Your task to perform on an android device: turn off picture-in-picture Image 0: 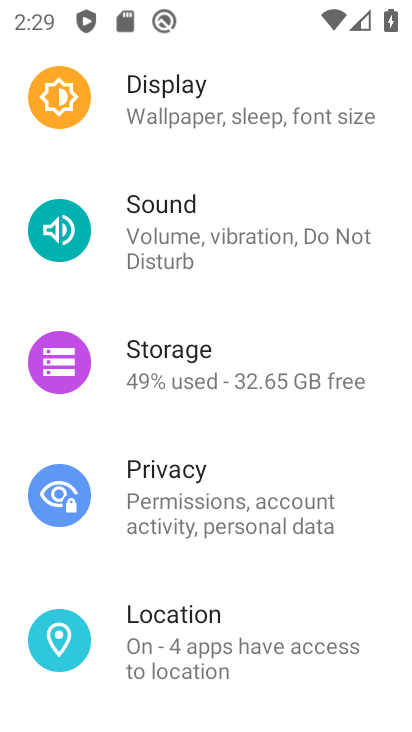
Step 0: drag from (219, 611) to (281, 352)
Your task to perform on an android device: turn off picture-in-picture Image 1: 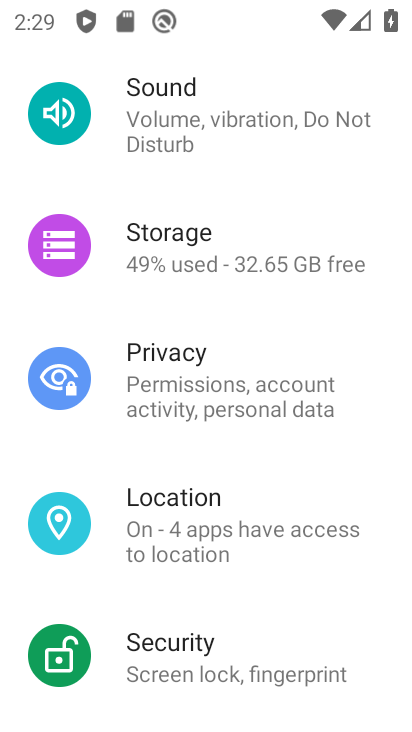
Step 1: drag from (161, 644) to (261, 716)
Your task to perform on an android device: turn off picture-in-picture Image 2: 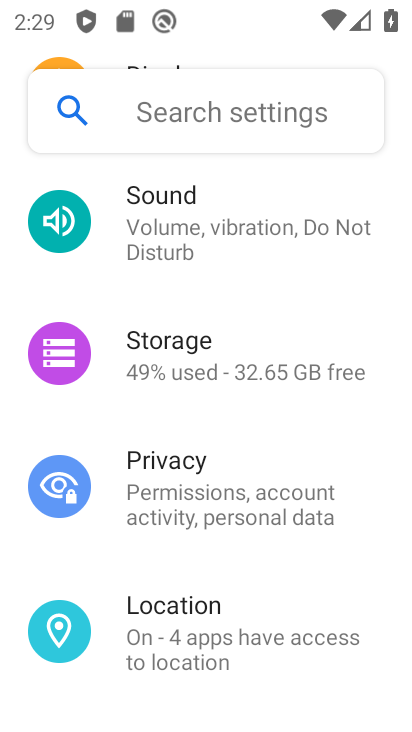
Step 2: drag from (258, 332) to (208, 705)
Your task to perform on an android device: turn off picture-in-picture Image 3: 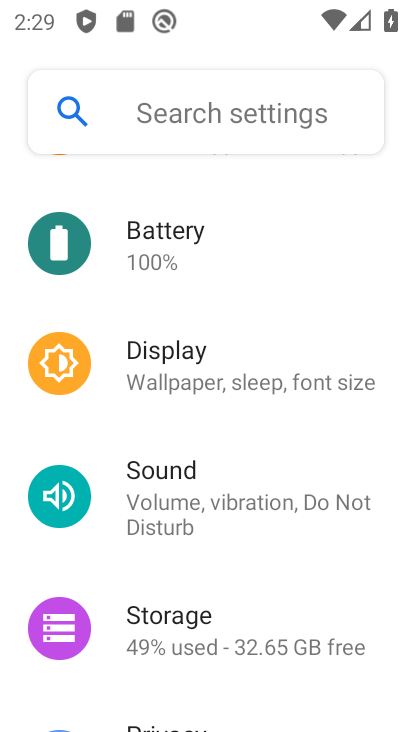
Step 3: drag from (256, 403) to (218, 699)
Your task to perform on an android device: turn off picture-in-picture Image 4: 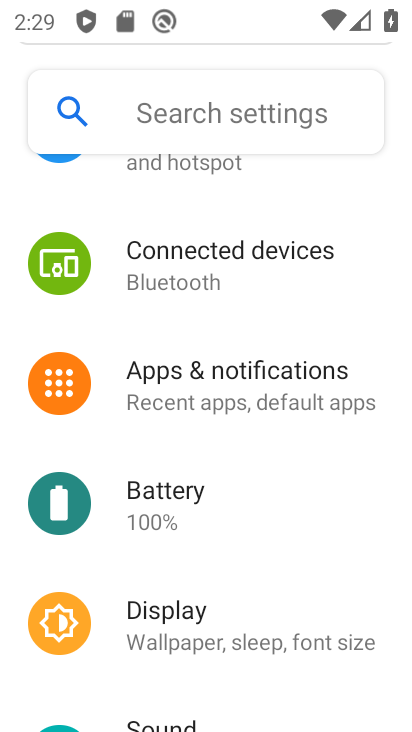
Step 4: click (277, 406)
Your task to perform on an android device: turn off picture-in-picture Image 5: 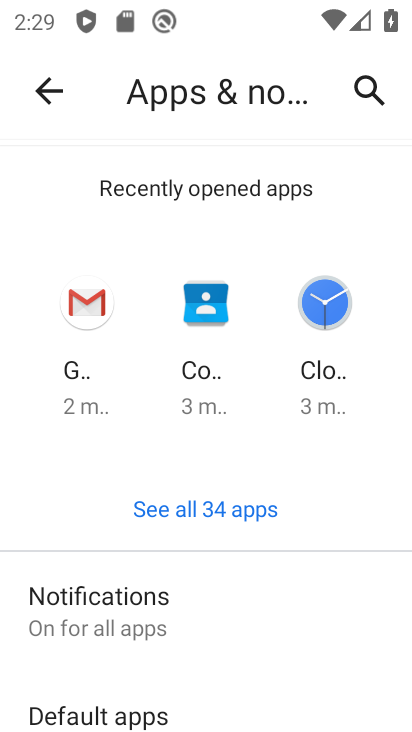
Step 5: drag from (168, 683) to (320, 428)
Your task to perform on an android device: turn off picture-in-picture Image 6: 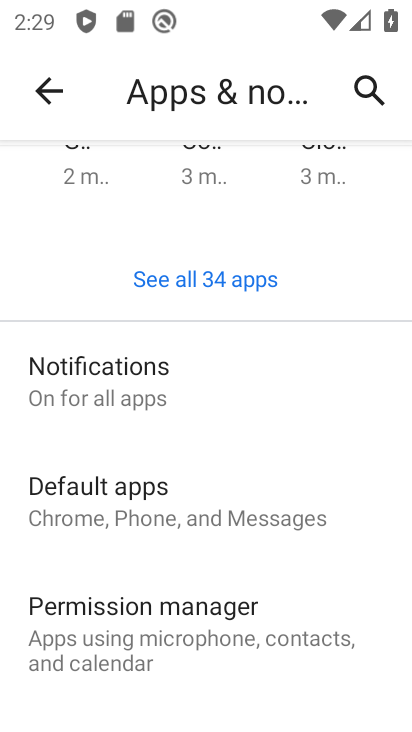
Step 6: drag from (100, 648) to (262, 271)
Your task to perform on an android device: turn off picture-in-picture Image 7: 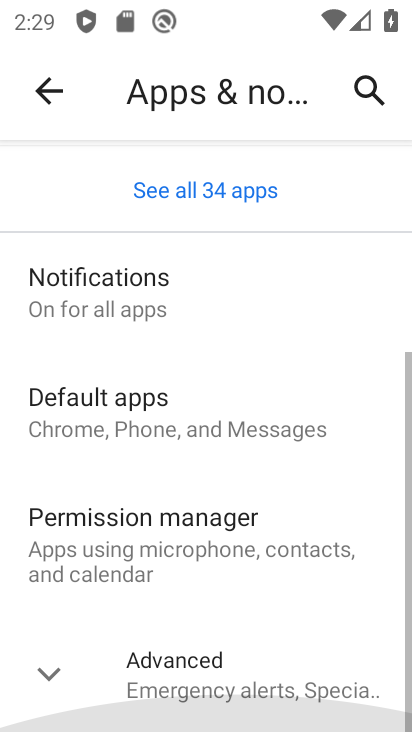
Step 7: click (227, 688)
Your task to perform on an android device: turn off picture-in-picture Image 8: 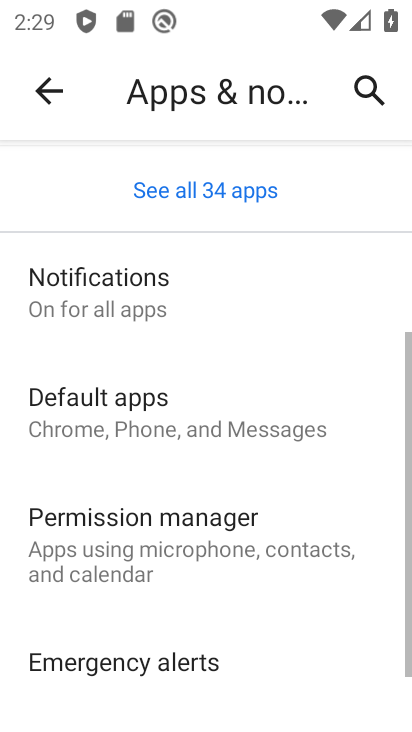
Step 8: drag from (230, 685) to (335, 362)
Your task to perform on an android device: turn off picture-in-picture Image 9: 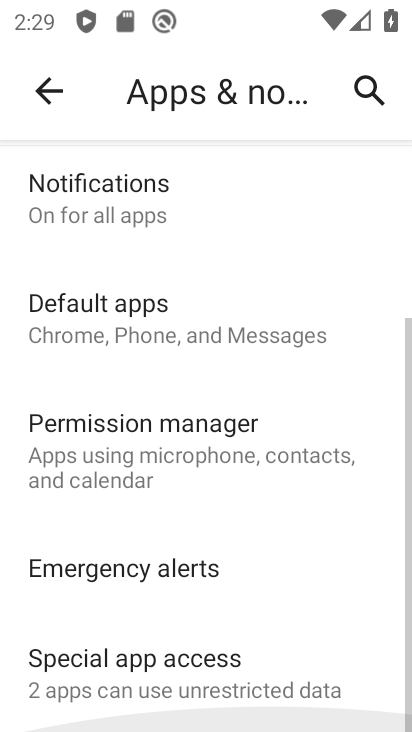
Step 9: click (251, 668)
Your task to perform on an android device: turn off picture-in-picture Image 10: 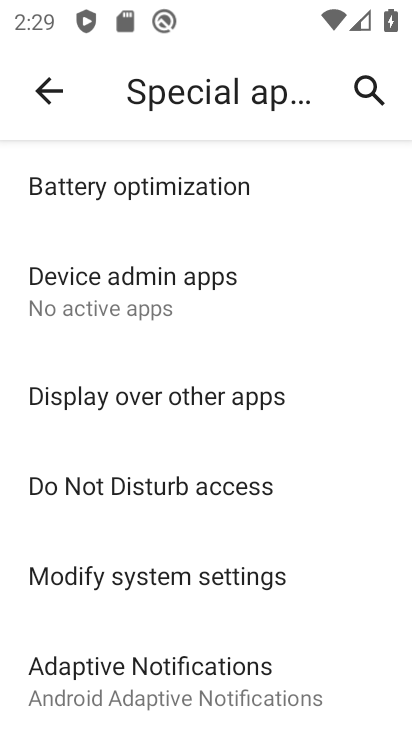
Step 10: drag from (99, 649) to (185, 268)
Your task to perform on an android device: turn off picture-in-picture Image 11: 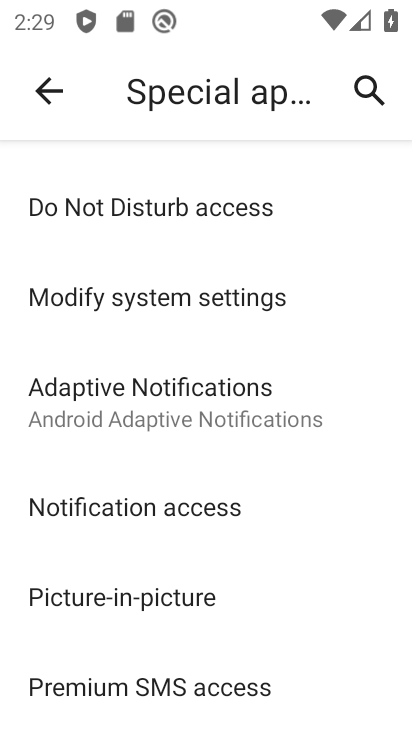
Step 11: click (162, 592)
Your task to perform on an android device: turn off picture-in-picture Image 12: 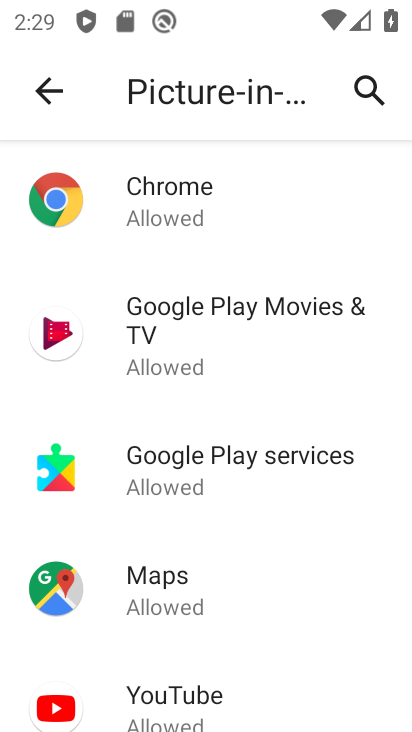
Step 12: click (265, 220)
Your task to perform on an android device: turn off picture-in-picture Image 13: 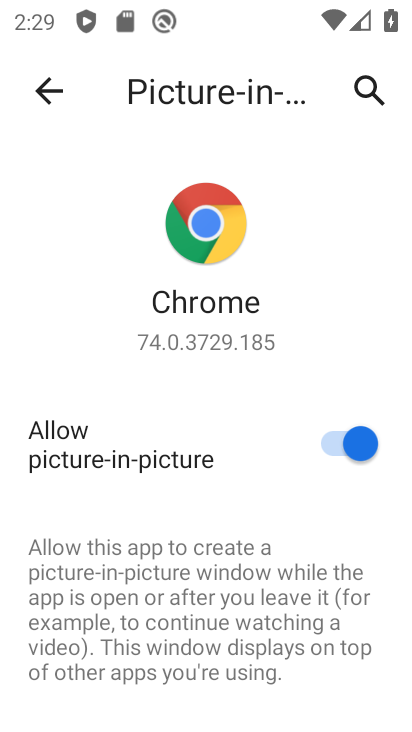
Step 13: click (316, 433)
Your task to perform on an android device: turn off picture-in-picture Image 14: 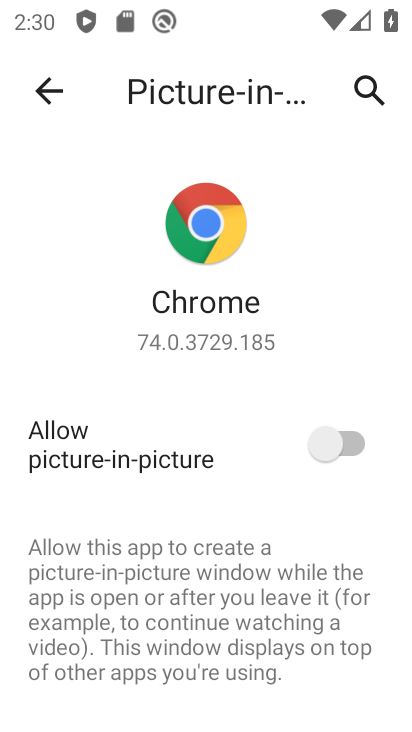
Step 14: press back button
Your task to perform on an android device: turn off picture-in-picture Image 15: 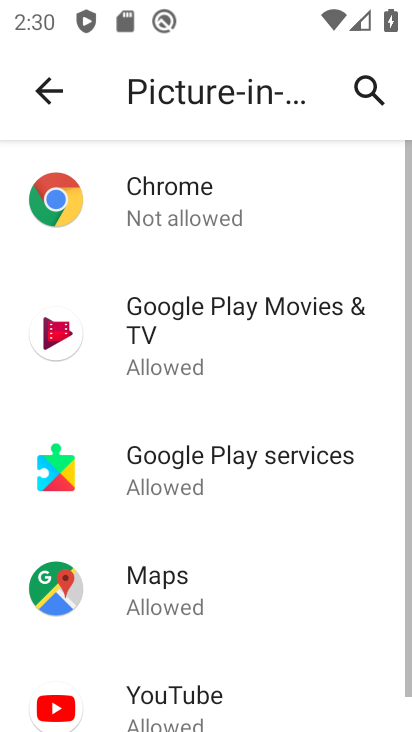
Step 15: click (243, 311)
Your task to perform on an android device: turn off picture-in-picture Image 16: 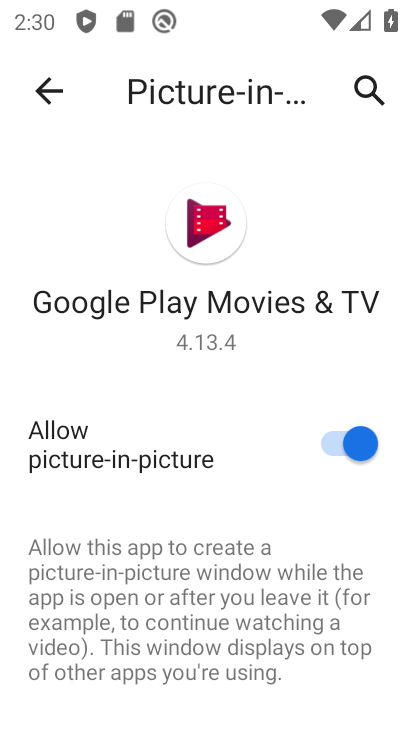
Step 16: click (316, 446)
Your task to perform on an android device: turn off picture-in-picture Image 17: 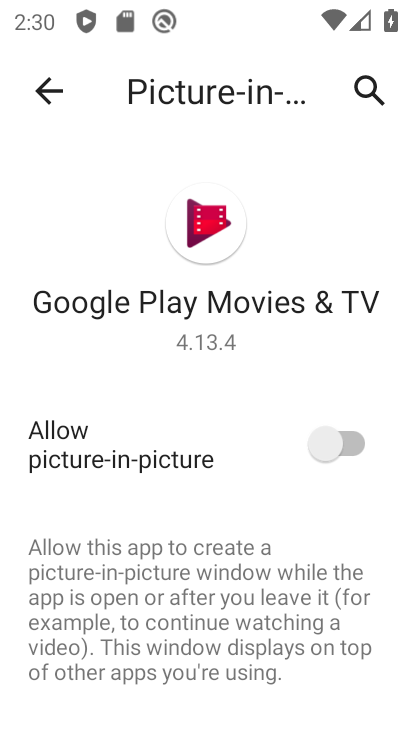
Step 17: press back button
Your task to perform on an android device: turn off picture-in-picture Image 18: 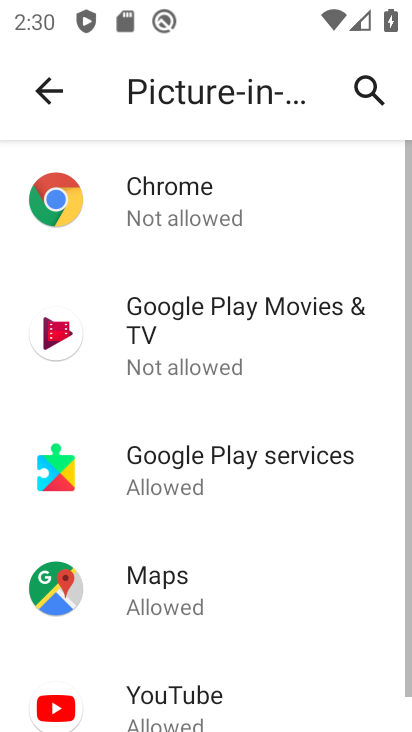
Step 18: click (246, 463)
Your task to perform on an android device: turn off picture-in-picture Image 19: 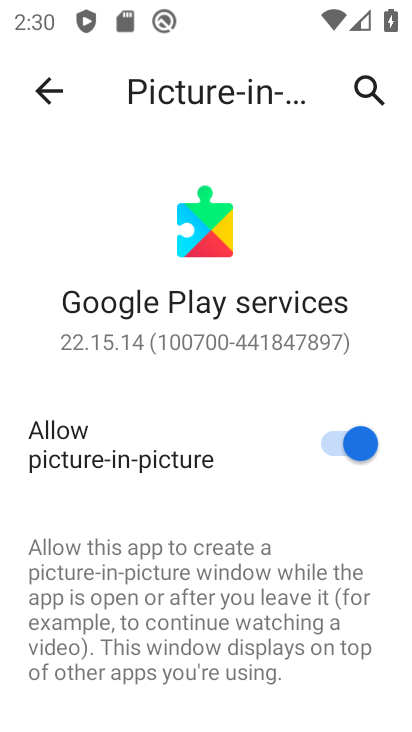
Step 19: click (318, 438)
Your task to perform on an android device: turn off picture-in-picture Image 20: 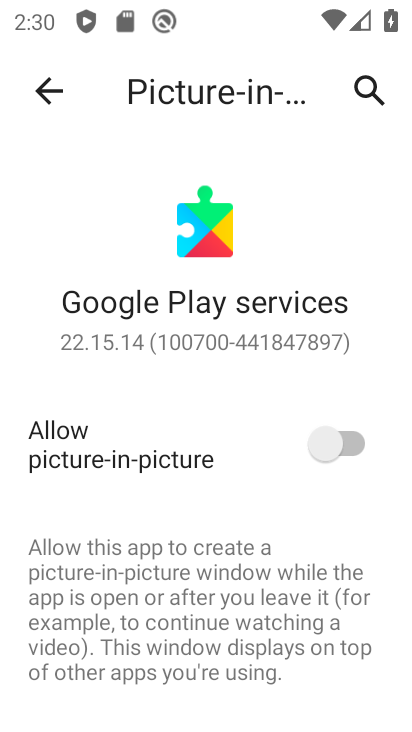
Step 20: press back button
Your task to perform on an android device: turn off picture-in-picture Image 21: 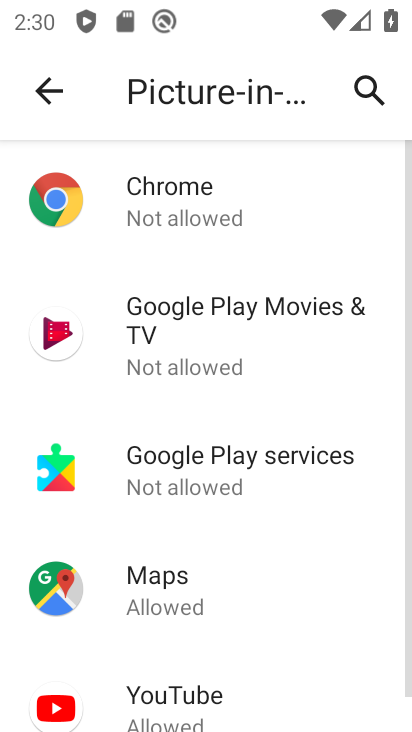
Step 21: click (238, 583)
Your task to perform on an android device: turn off picture-in-picture Image 22: 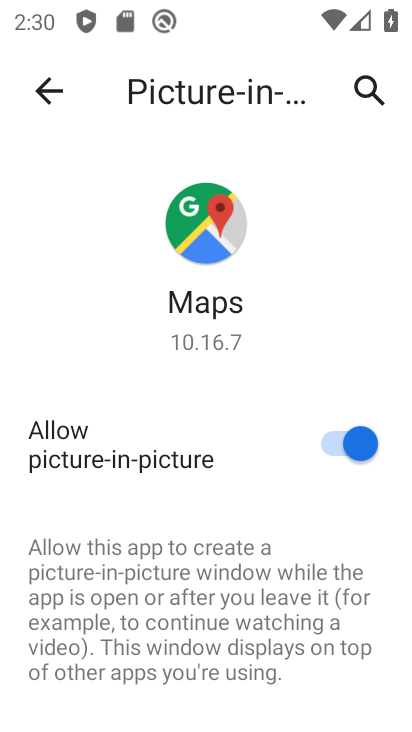
Step 22: click (318, 444)
Your task to perform on an android device: turn off picture-in-picture Image 23: 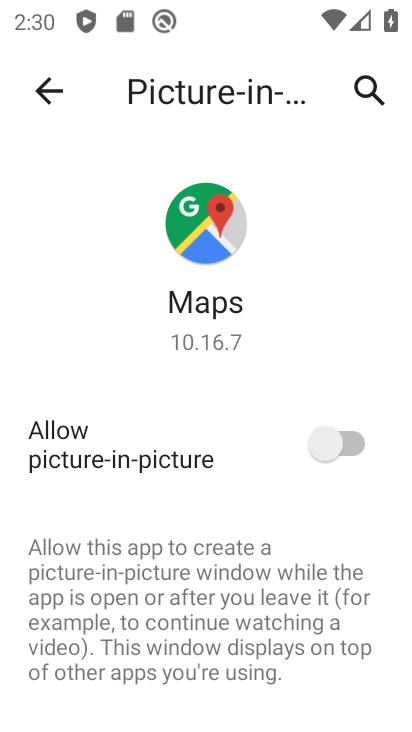
Step 23: press back button
Your task to perform on an android device: turn off picture-in-picture Image 24: 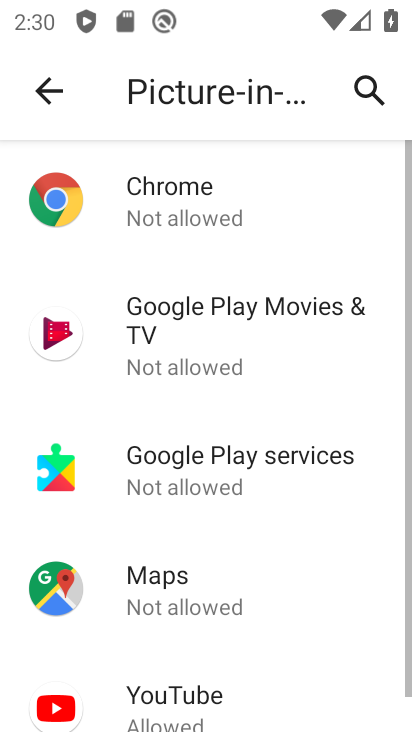
Step 24: click (189, 694)
Your task to perform on an android device: turn off picture-in-picture Image 25: 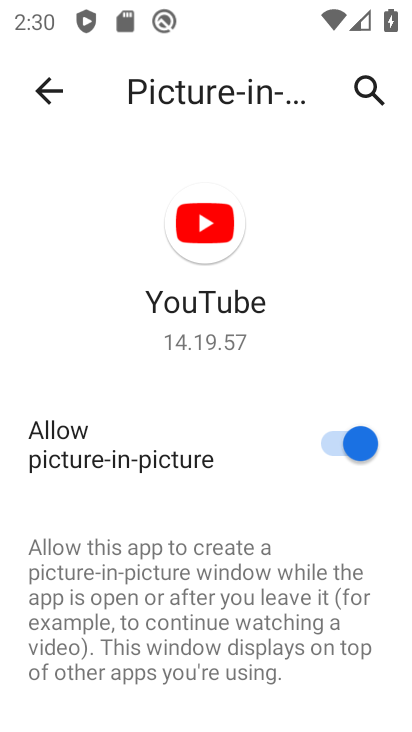
Step 25: click (338, 450)
Your task to perform on an android device: turn off picture-in-picture Image 26: 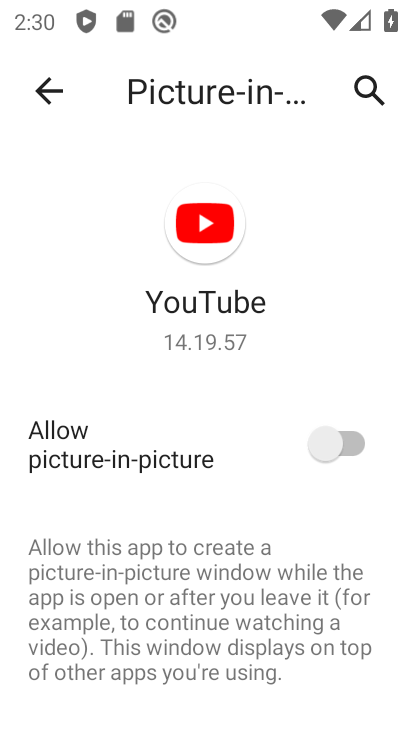
Step 26: task complete